Your task to perform on an android device: toggle data saver in the chrome app Image 0: 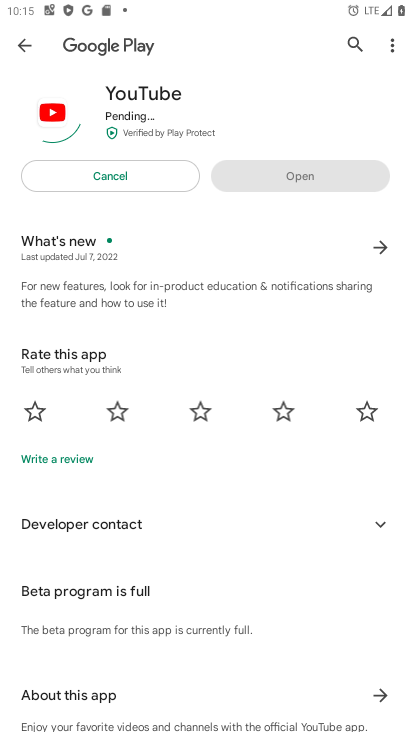
Step 0: press home button
Your task to perform on an android device: toggle data saver in the chrome app Image 1: 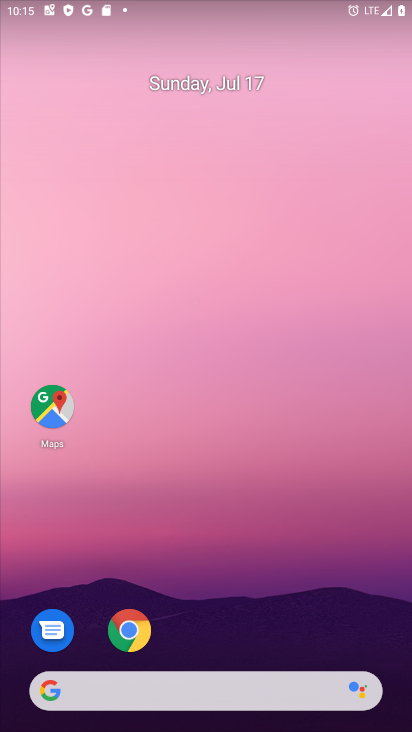
Step 1: click (125, 625)
Your task to perform on an android device: toggle data saver in the chrome app Image 2: 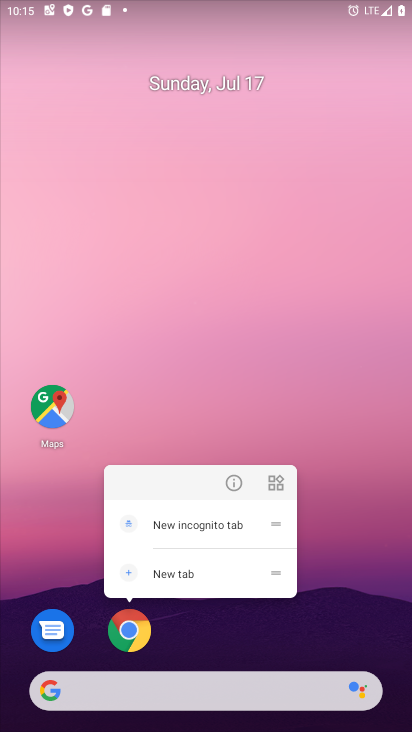
Step 2: click (128, 625)
Your task to perform on an android device: toggle data saver in the chrome app Image 3: 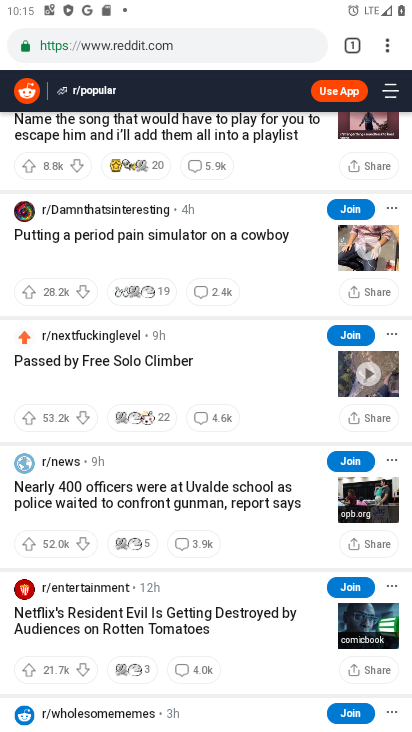
Step 3: click (385, 41)
Your task to perform on an android device: toggle data saver in the chrome app Image 4: 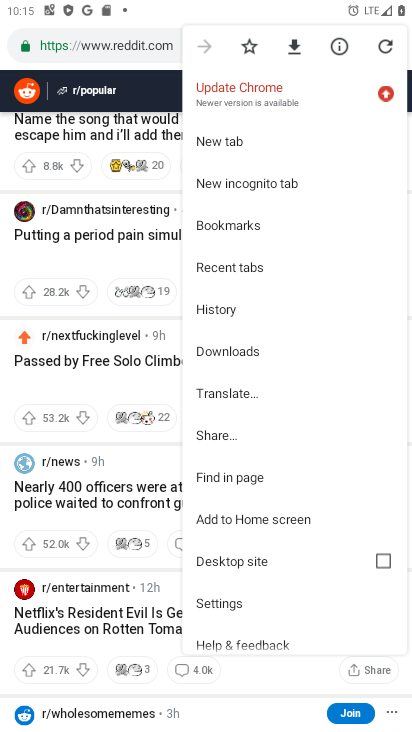
Step 4: click (244, 601)
Your task to perform on an android device: toggle data saver in the chrome app Image 5: 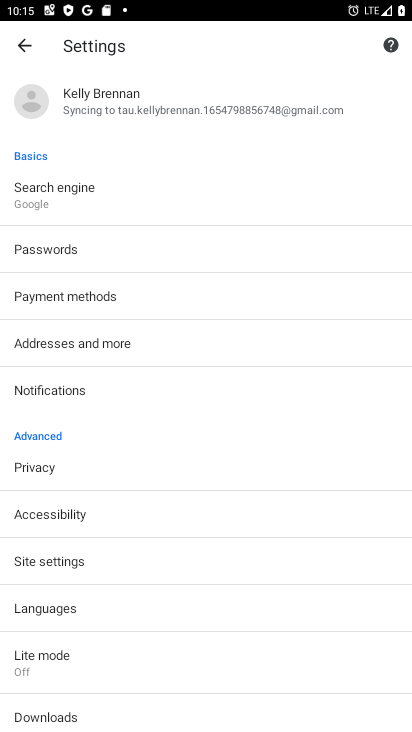
Step 5: click (70, 664)
Your task to perform on an android device: toggle data saver in the chrome app Image 6: 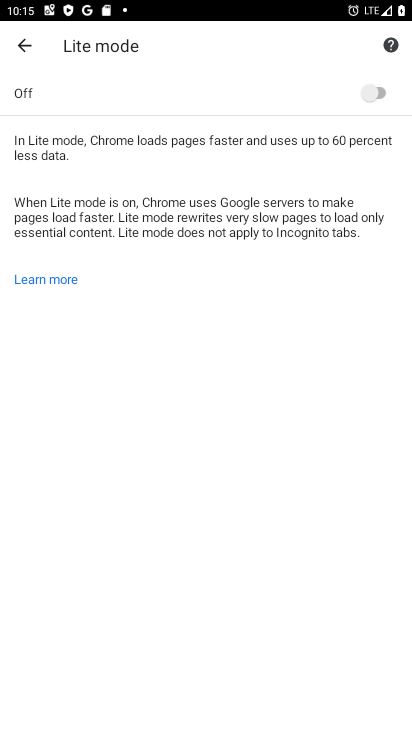
Step 6: click (378, 92)
Your task to perform on an android device: toggle data saver in the chrome app Image 7: 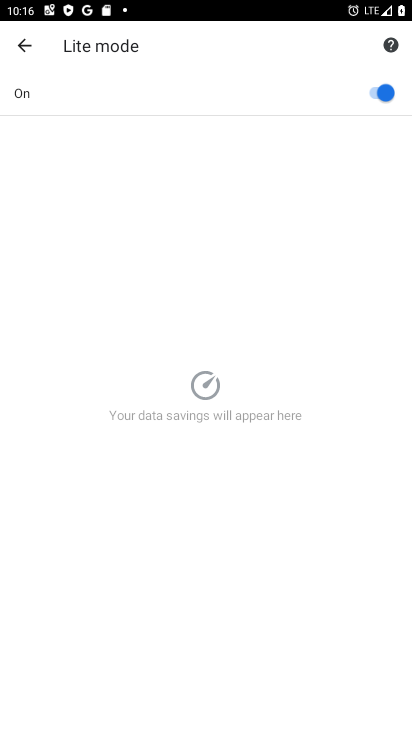
Step 7: task complete